Your task to perform on an android device: Open the stopwatch Image 0: 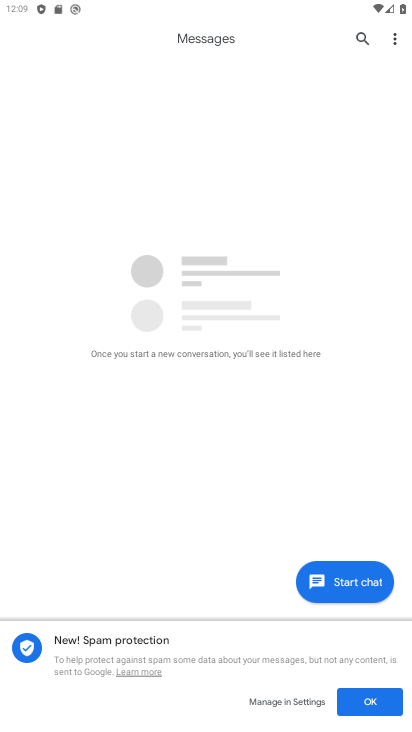
Step 0: press home button
Your task to perform on an android device: Open the stopwatch Image 1: 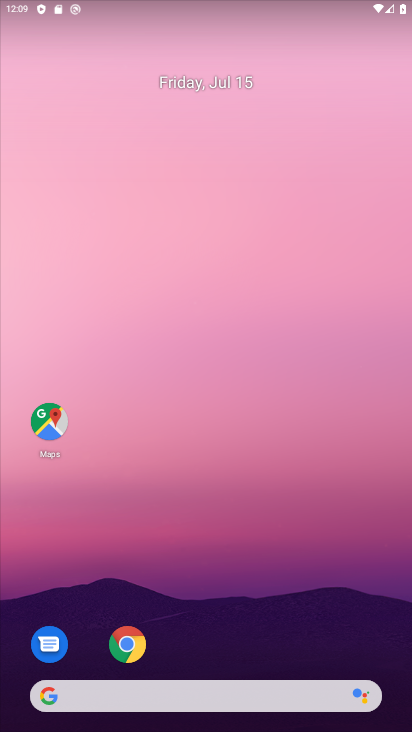
Step 1: drag from (218, 718) to (250, 134)
Your task to perform on an android device: Open the stopwatch Image 2: 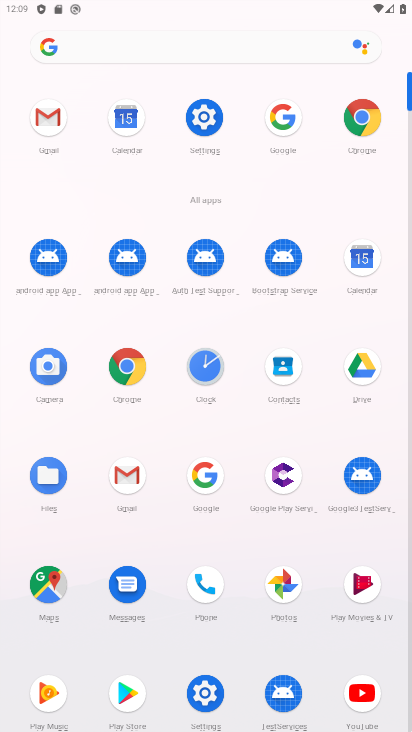
Step 2: click (206, 369)
Your task to perform on an android device: Open the stopwatch Image 3: 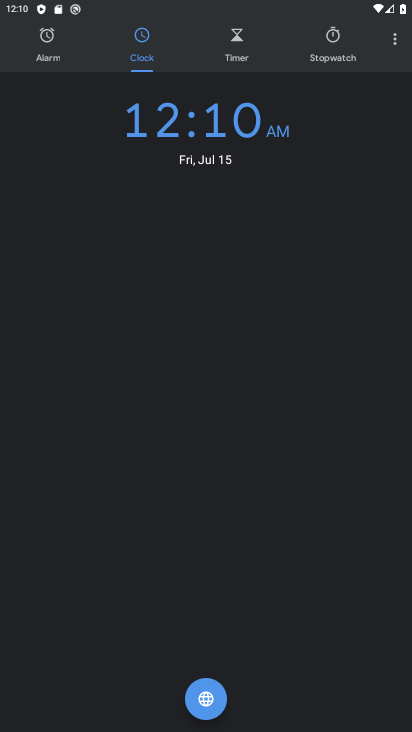
Step 3: click (333, 38)
Your task to perform on an android device: Open the stopwatch Image 4: 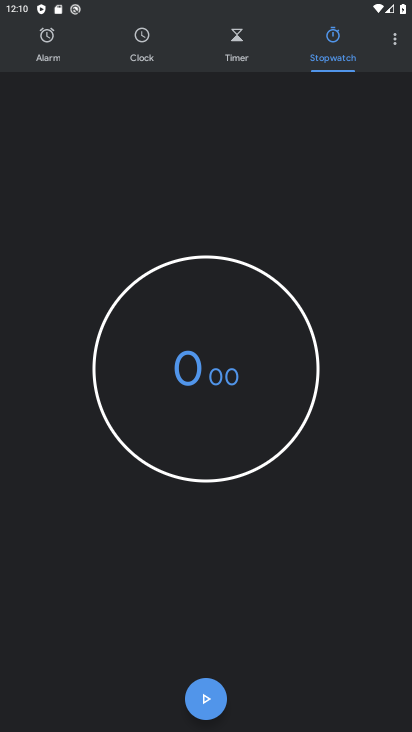
Step 4: task complete